Your task to perform on an android device: delete a single message in the gmail app Image 0: 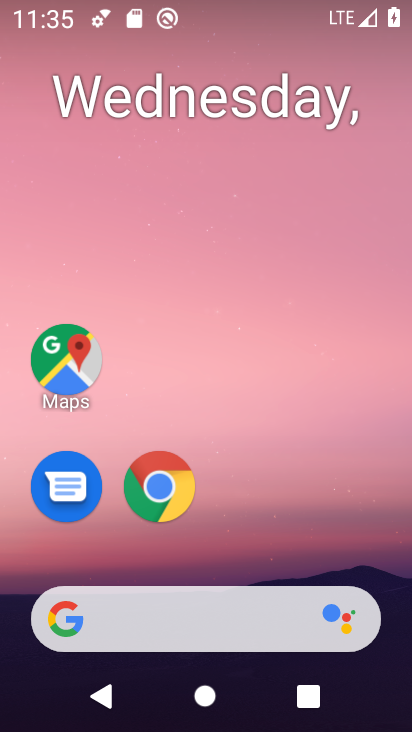
Step 0: drag from (353, 534) to (354, 188)
Your task to perform on an android device: delete a single message in the gmail app Image 1: 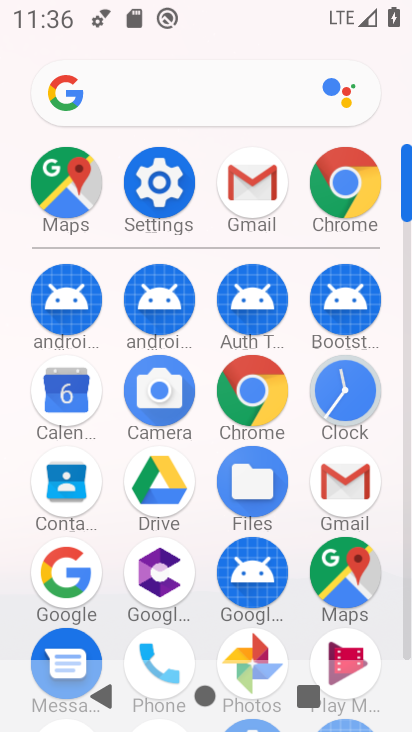
Step 1: click (361, 482)
Your task to perform on an android device: delete a single message in the gmail app Image 2: 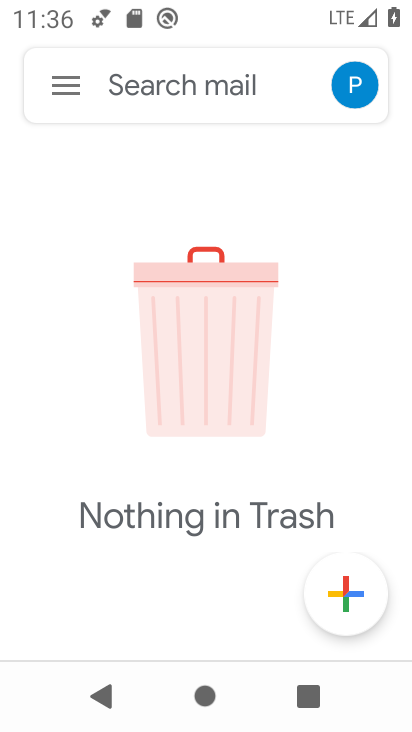
Step 2: click (84, 86)
Your task to perform on an android device: delete a single message in the gmail app Image 3: 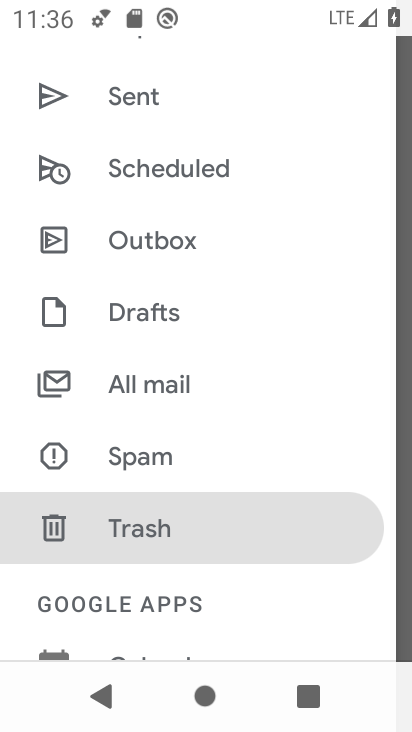
Step 3: drag from (318, 200) to (359, 498)
Your task to perform on an android device: delete a single message in the gmail app Image 4: 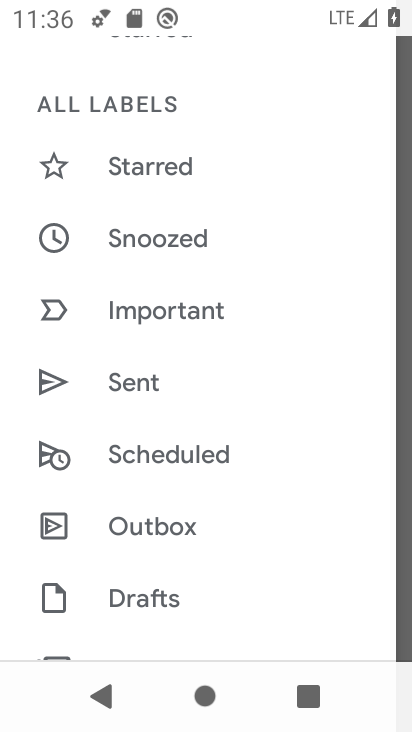
Step 4: drag from (322, 303) to (343, 566)
Your task to perform on an android device: delete a single message in the gmail app Image 5: 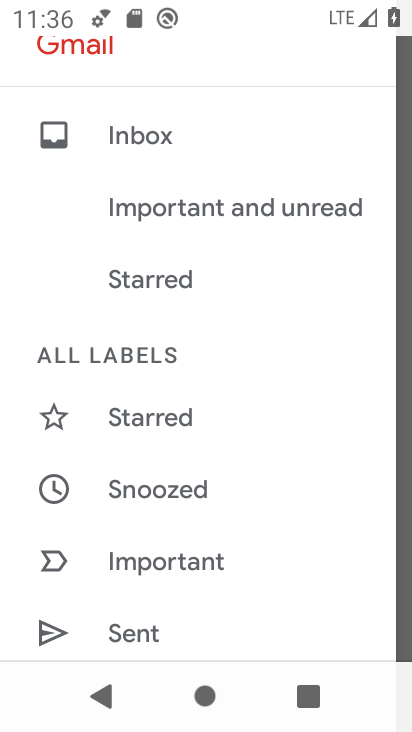
Step 5: drag from (321, 302) to (314, 439)
Your task to perform on an android device: delete a single message in the gmail app Image 6: 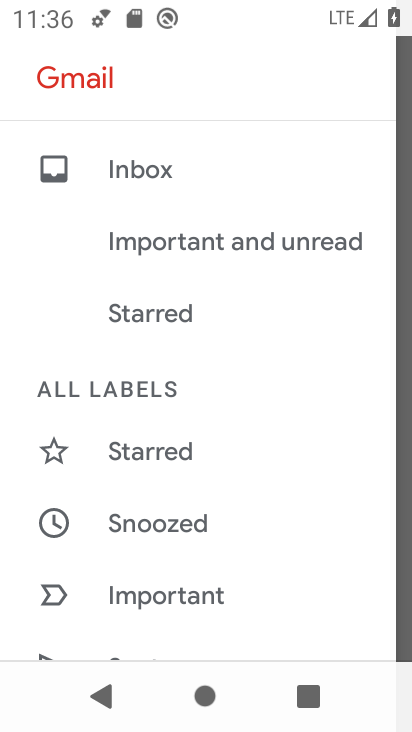
Step 6: drag from (328, 180) to (350, 487)
Your task to perform on an android device: delete a single message in the gmail app Image 7: 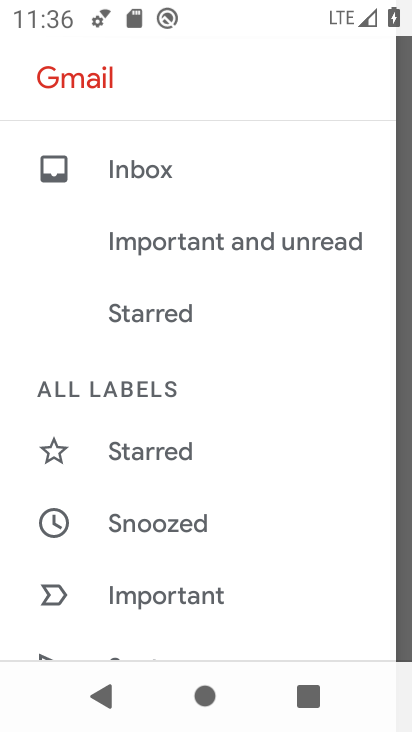
Step 7: click (158, 168)
Your task to perform on an android device: delete a single message in the gmail app Image 8: 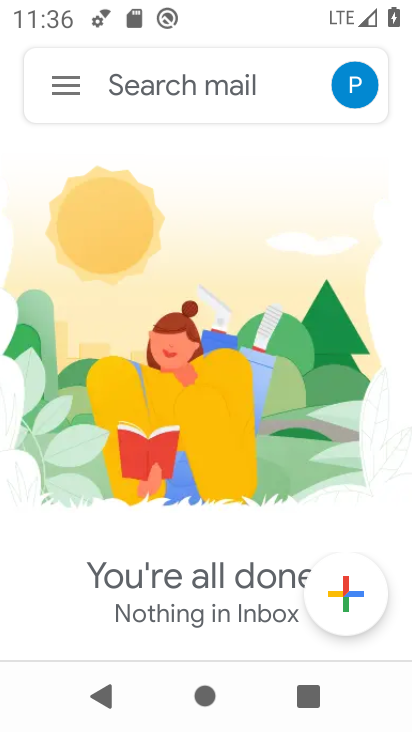
Step 8: task complete